Your task to perform on an android device: check out phone information Image 0: 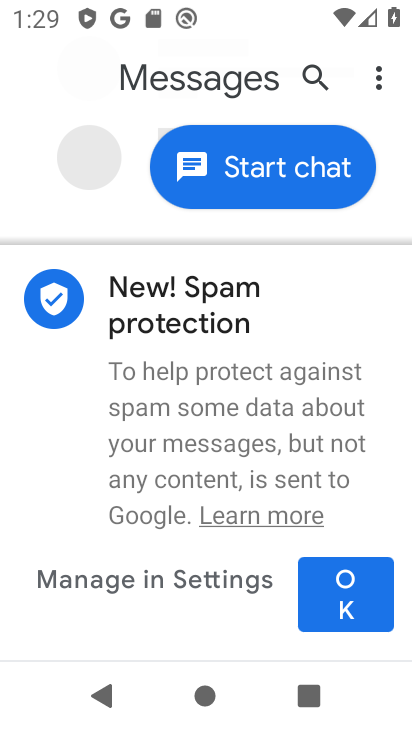
Step 0: press home button
Your task to perform on an android device: check out phone information Image 1: 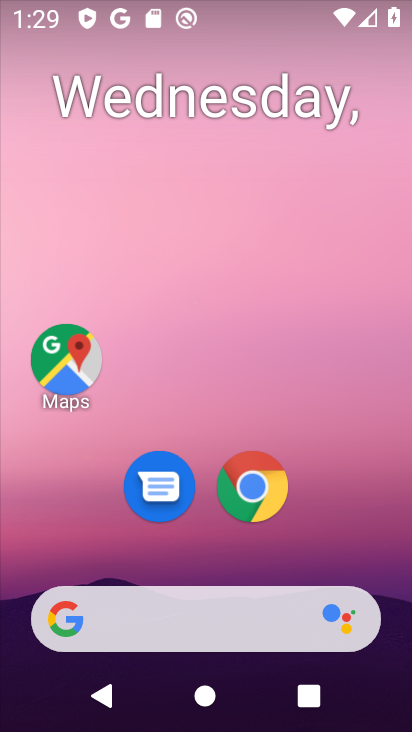
Step 1: drag from (207, 584) to (356, 14)
Your task to perform on an android device: check out phone information Image 2: 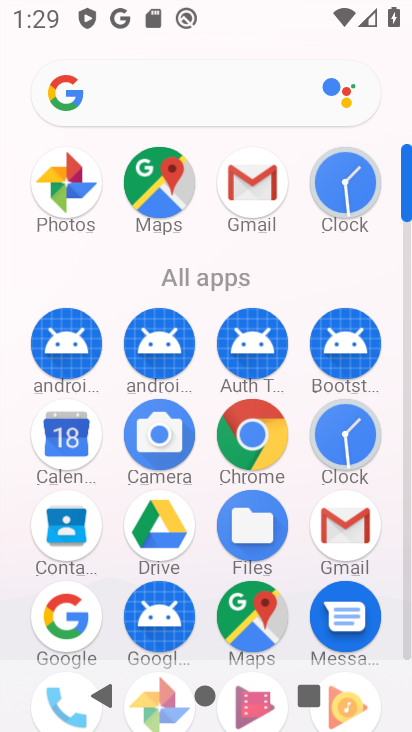
Step 2: drag from (212, 581) to (301, 78)
Your task to perform on an android device: check out phone information Image 3: 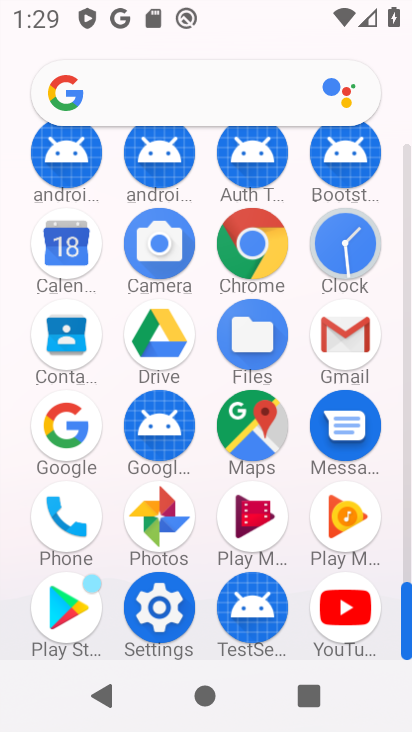
Step 3: click (52, 537)
Your task to perform on an android device: check out phone information Image 4: 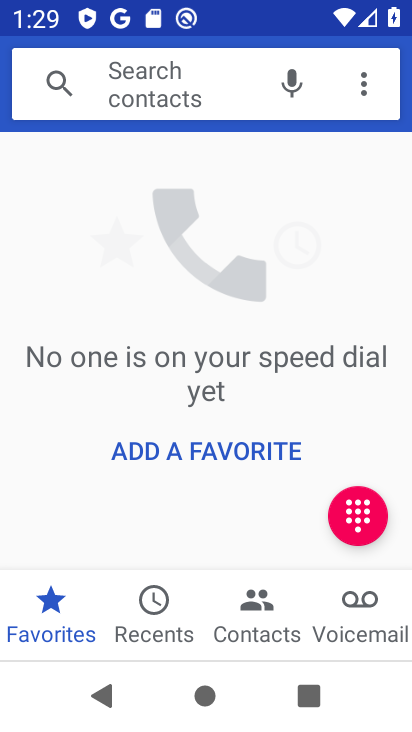
Step 4: click (357, 75)
Your task to perform on an android device: check out phone information Image 5: 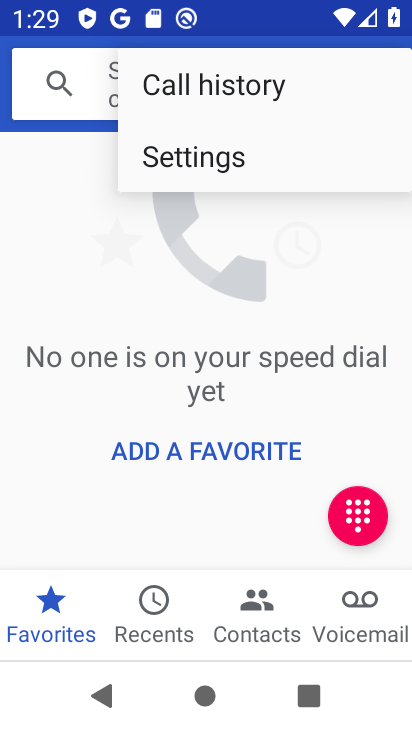
Step 5: click (222, 165)
Your task to perform on an android device: check out phone information Image 6: 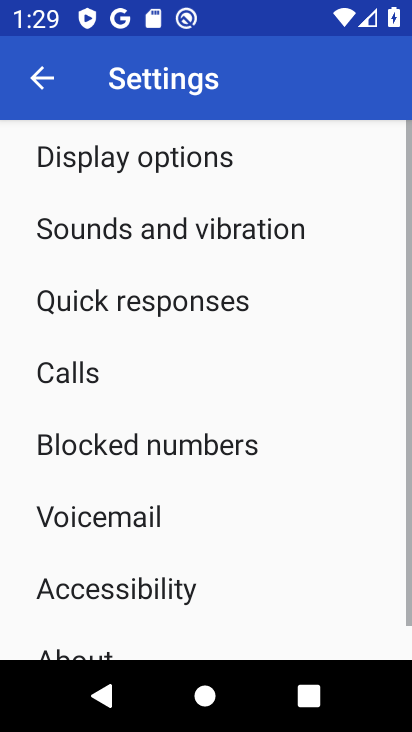
Step 6: drag from (187, 468) to (367, 65)
Your task to perform on an android device: check out phone information Image 7: 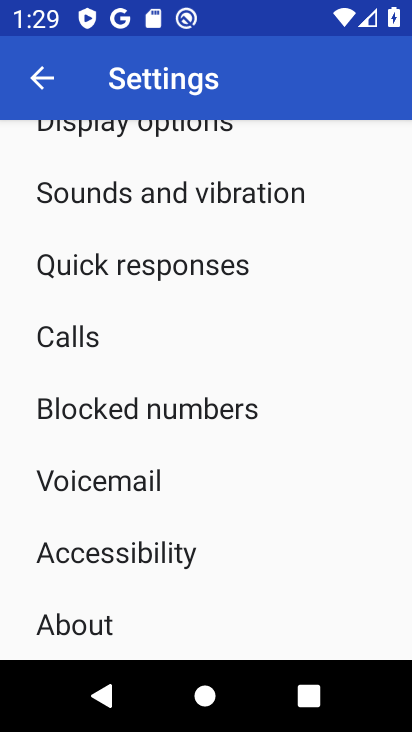
Step 7: click (84, 614)
Your task to perform on an android device: check out phone information Image 8: 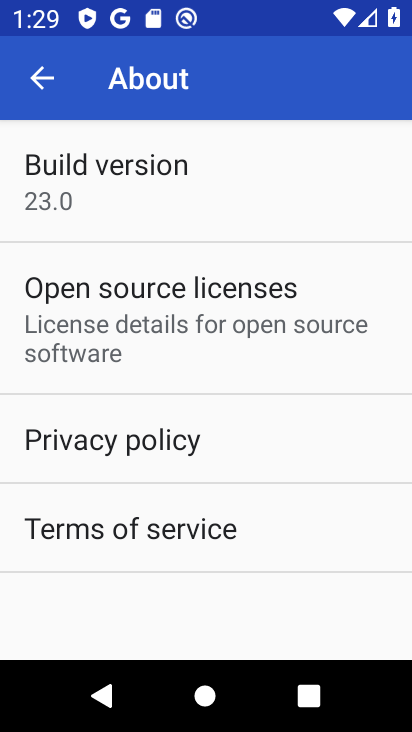
Step 8: task complete